Your task to perform on an android device: Open network settings Image 0: 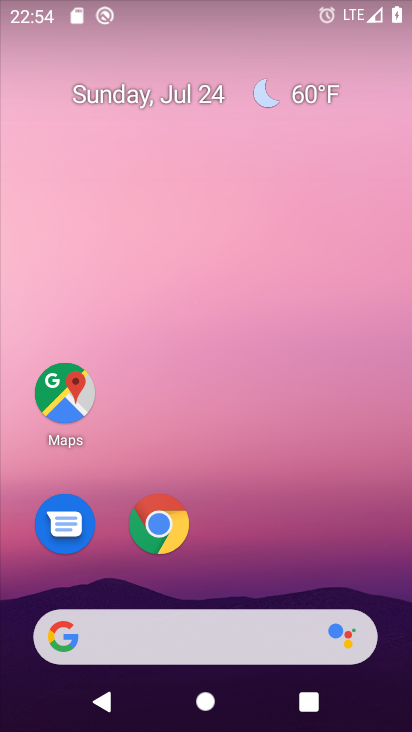
Step 0: drag from (264, 555) to (290, 56)
Your task to perform on an android device: Open network settings Image 1: 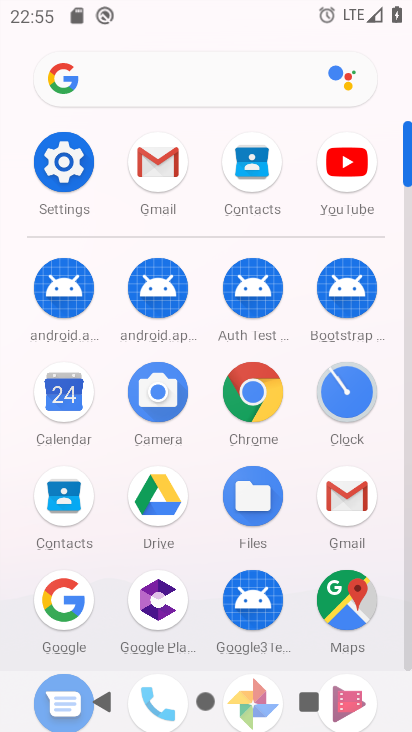
Step 1: click (68, 161)
Your task to perform on an android device: Open network settings Image 2: 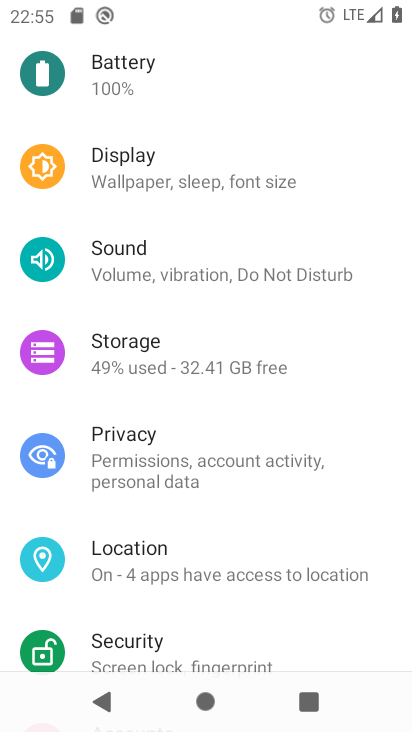
Step 2: drag from (240, 327) to (228, 605)
Your task to perform on an android device: Open network settings Image 3: 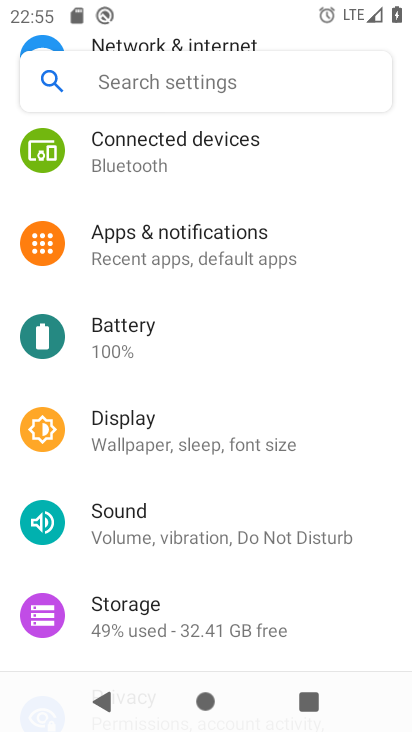
Step 3: drag from (264, 180) to (245, 585)
Your task to perform on an android device: Open network settings Image 4: 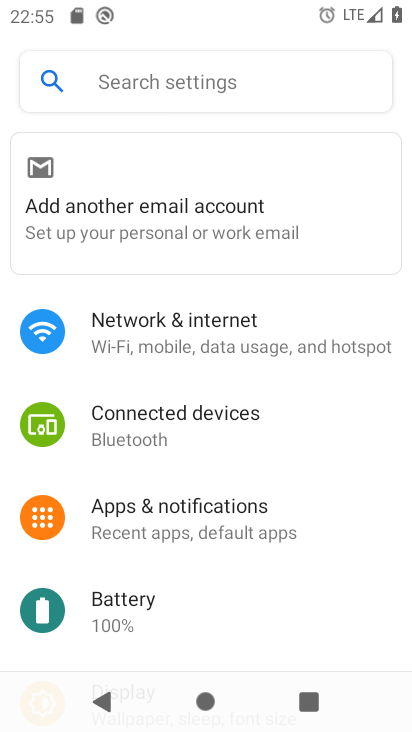
Step 4: click (255, 337)
Your task to perform on an android device: Open network settings Image 5: 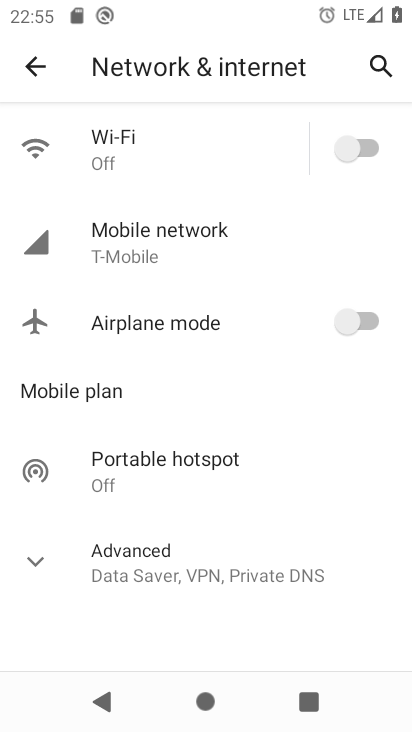
Step 5: task complete